Your task to perform on an android device: check battery use Image 0: 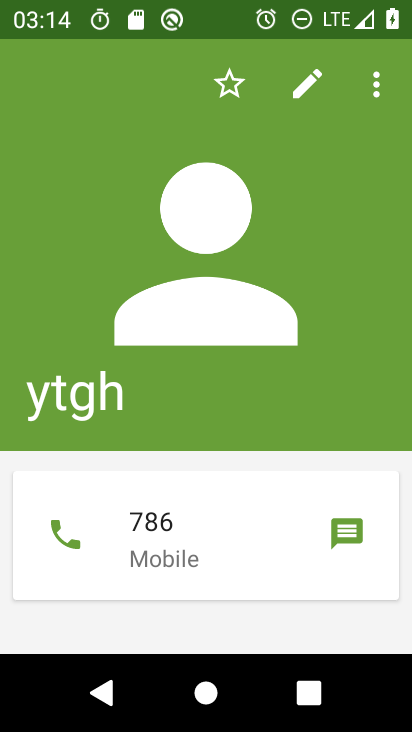
Step 0: press home button
Your task to perform on an android device: check battery use Image 1: 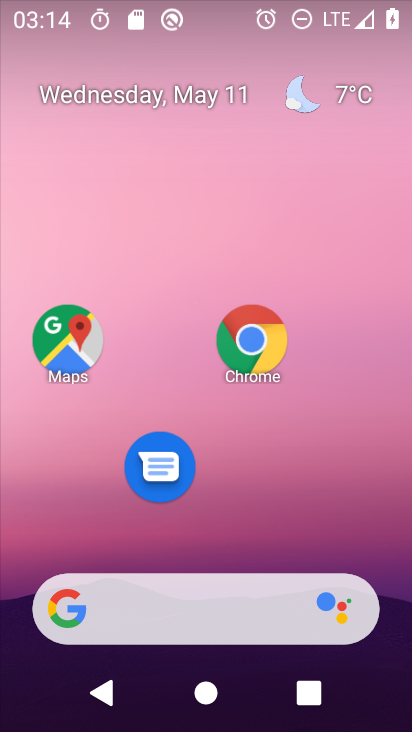
Step 1: drag from (187, 617) to (272, 175)
Your task to perform on an android device: check battery use Image 2: 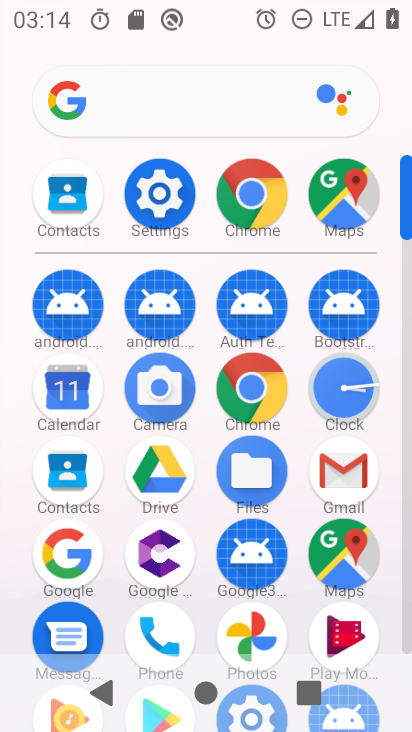
Step 2: click (159, 210)
Your task to perform on an android device: check battery use Image 3: 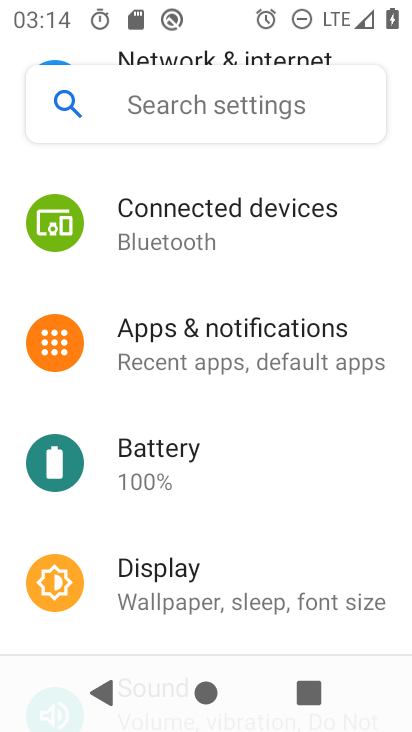
Step 3: click (146, 453)
Your task to perform on an android device: check battery use Image 4: 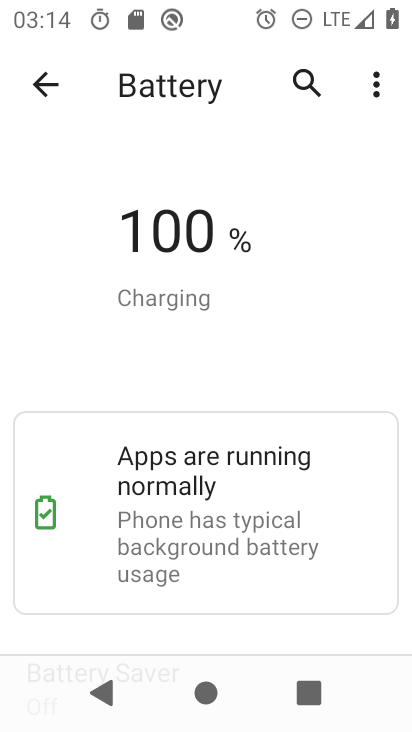
Step 4: click (370, 83)
Your task to perform on an android device: check battery use Image 5: 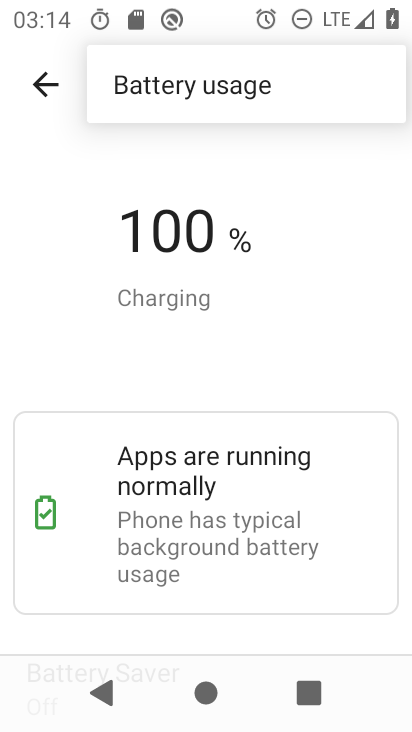
Step 5: click (245, 83)
Your task to perform on an android device: check battery use Image 6: 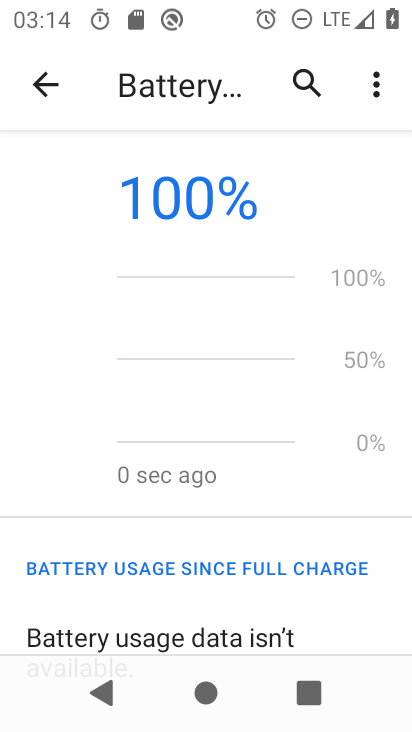
Step 6: task complete